Your task to perform on an android device: move a message to another label in the gmail app Image 0: 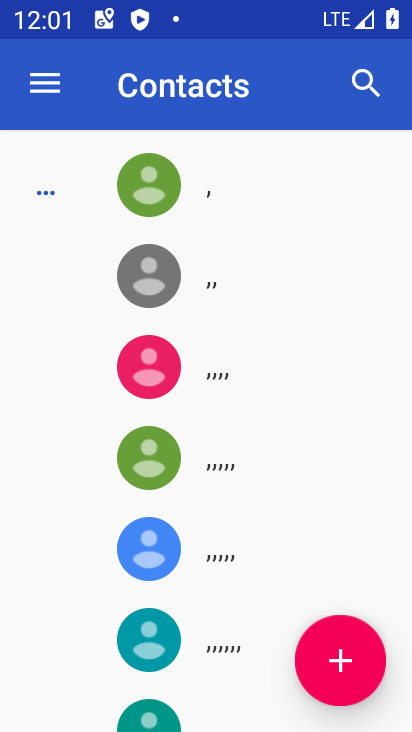
Step 0: press home button
Your task to perform on an android device: move a message to another label in the gmail app Image 1: 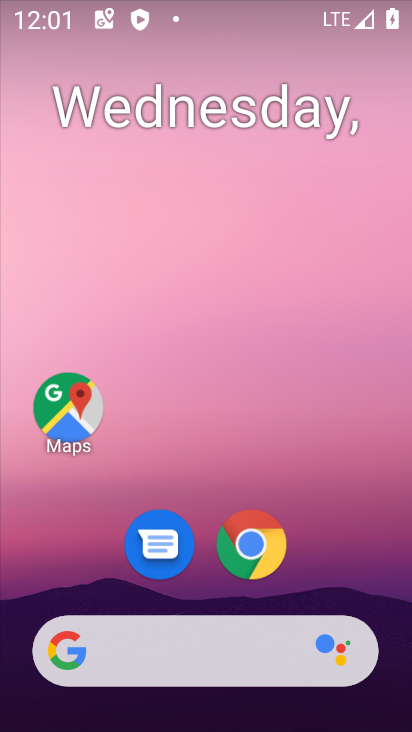
Step 1: drag from (386, 630) to (324, 63)
Your task to perform on an android device: move a message to another label in the gmail app Image 2: 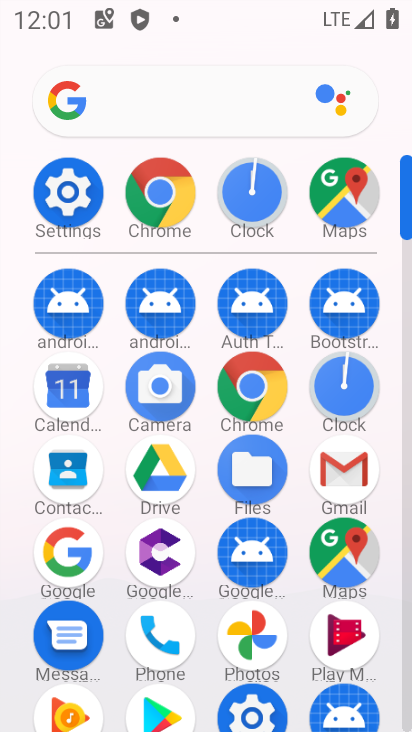
Step 2: click (346, 471)
Your task to perform on an android device: move a message to another label in the gmail app Image 3: 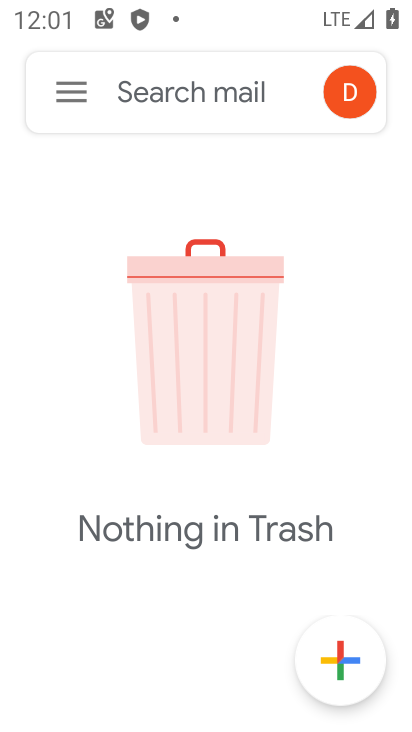
Step 3: click (64, 82)
Your task to perform on an android device: move a message to another label in the gmail app Image 4: 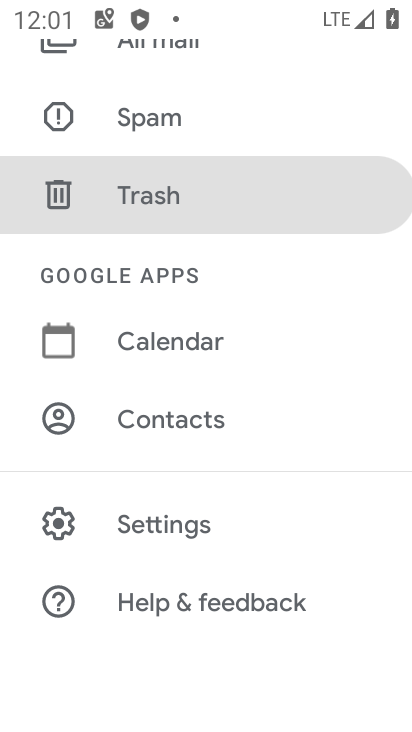
Step 4: drag from (140, 134) to (130, 688)
Your task to perform on an android device: move a message to another label in the gmail app Image 5: 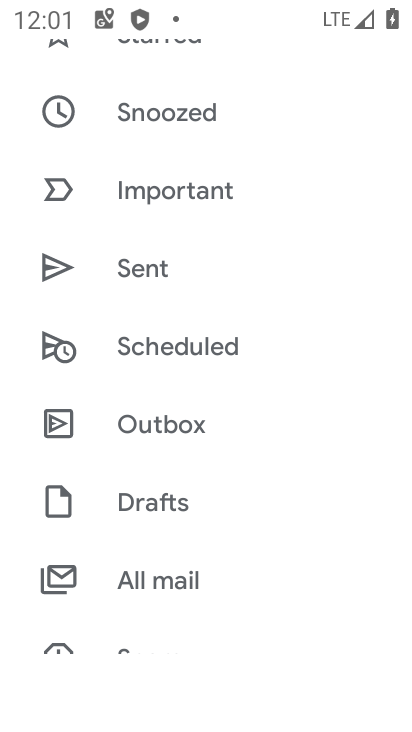
Step 5: drag from (174, 119) to (207, 721)
Your task to perform on an android device: move a message to another label in the gmail app Image 6: 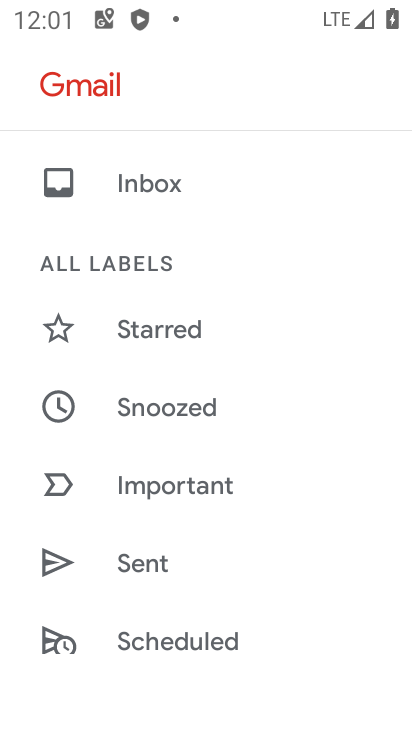
Step 6: click (185, 181)
Your task to perform on an android device: move a message to another label in the gmail app Image 7: 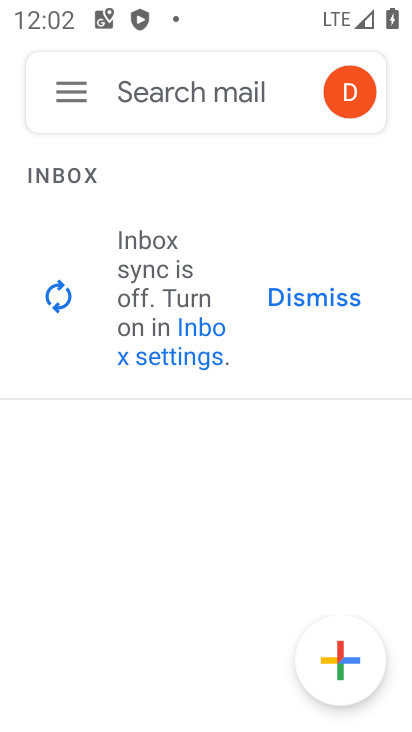
Step 7: task complete